Your task to perform on an android device: Go to battery settings Image 0: 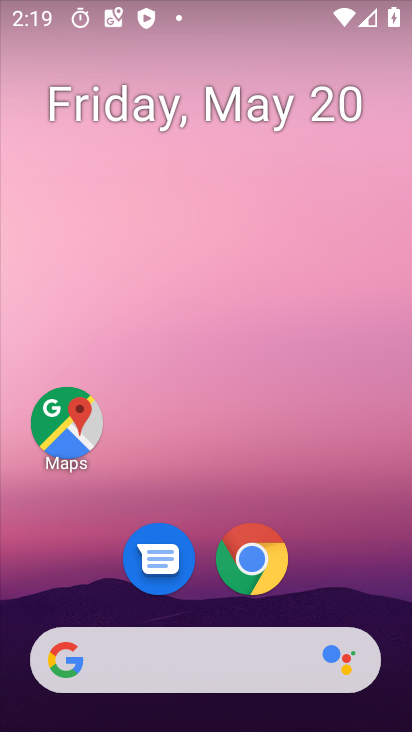
Step 0: drag from (330, 573) to (214, 84)
Your task to perform on an android device: Go to battery settings Image 1: 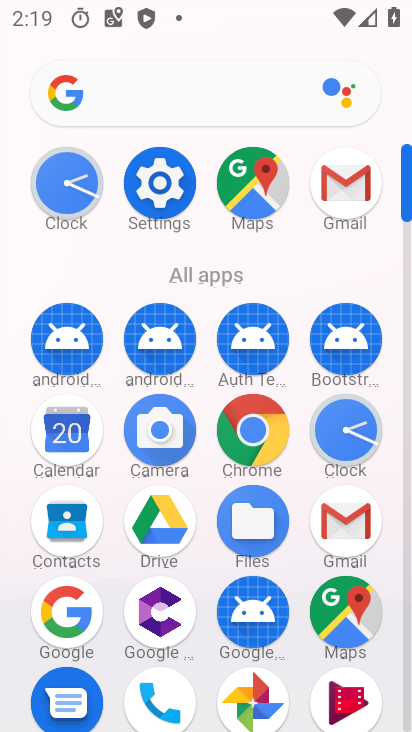
Step 1: click (159, 181)
Your task to perform on an android device: Go to battery settings Image 2: 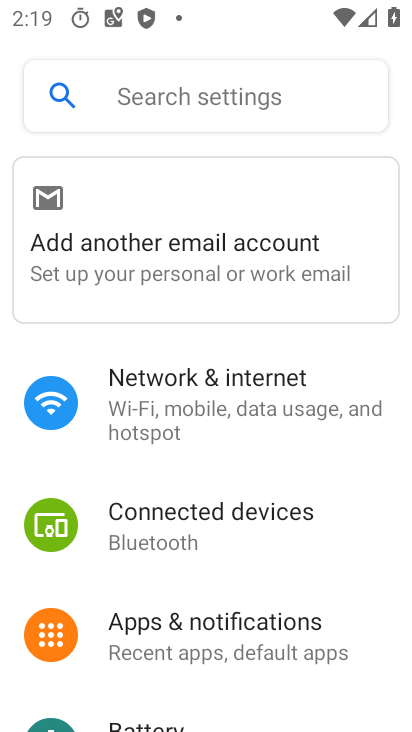
Step 2: drag from (155, 572) to (266, 432)
Your task to perform on an android device: Go to battery settings Image 3: 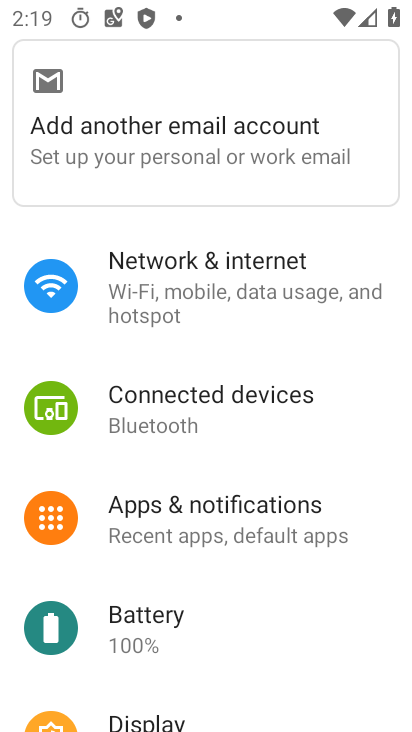
Step 3: click (131, 615)
Your task to perform on an android device: Go to battery settings Image 4: 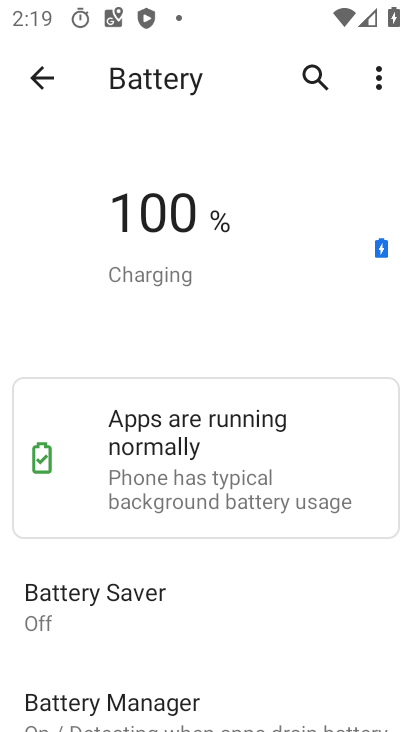
Step 4: task complete